Your task to perform on an android device: read, delete, or share a saved page in the chrome app Image 0: 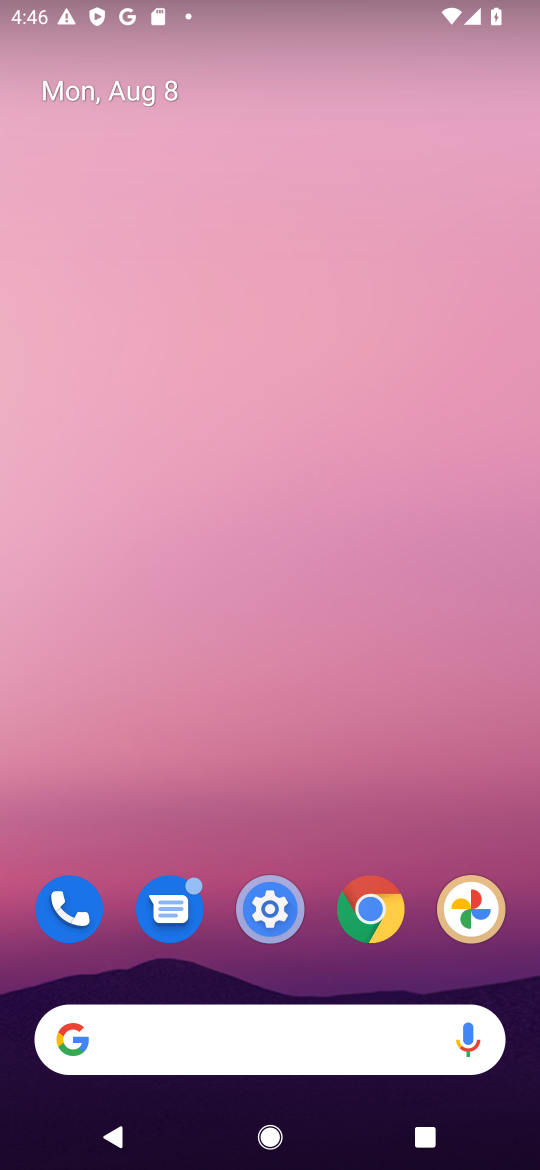
Step 0: click (368, 921)
Your task to perform on an android device: read, delete, or share a saved page in the chrome app Image 1: 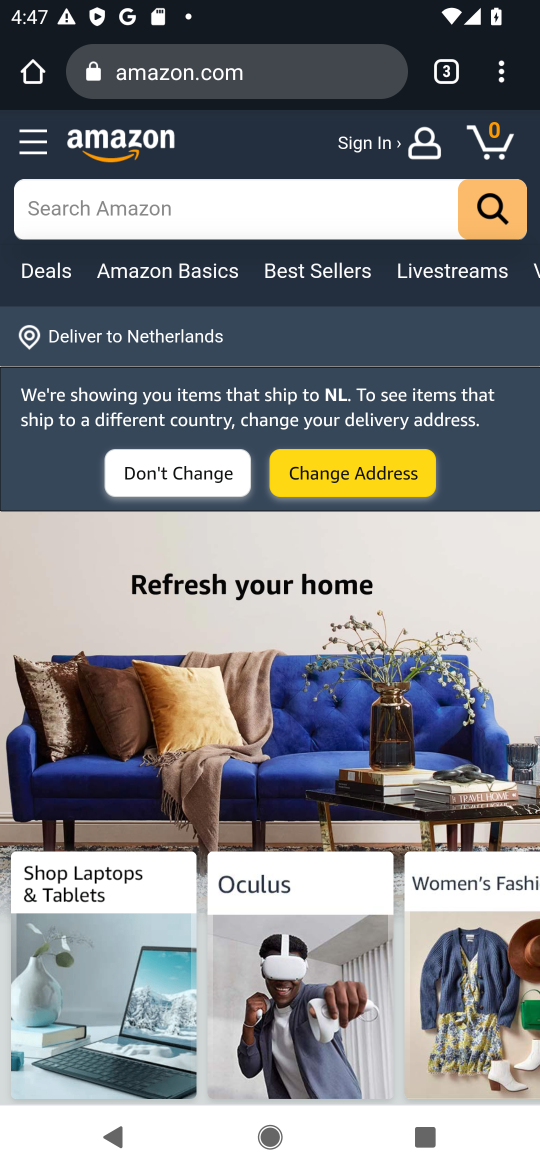
Step 1: task complete